Your task to perform on an android device: Open the stopwatch Image 0: 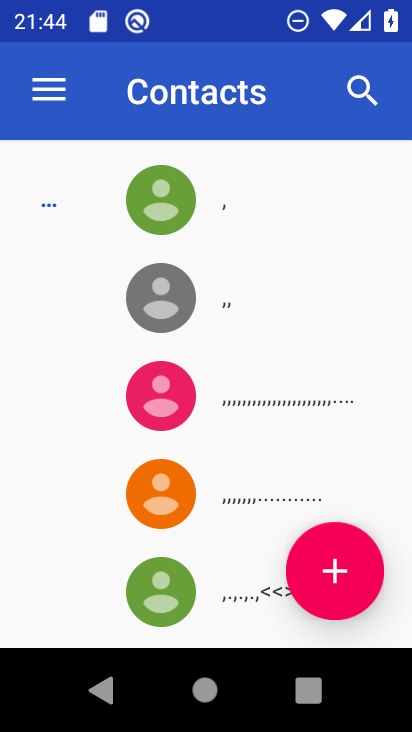
Step 0: press home button
Your task to perform on an android device: Open the stopwatch Image 1: 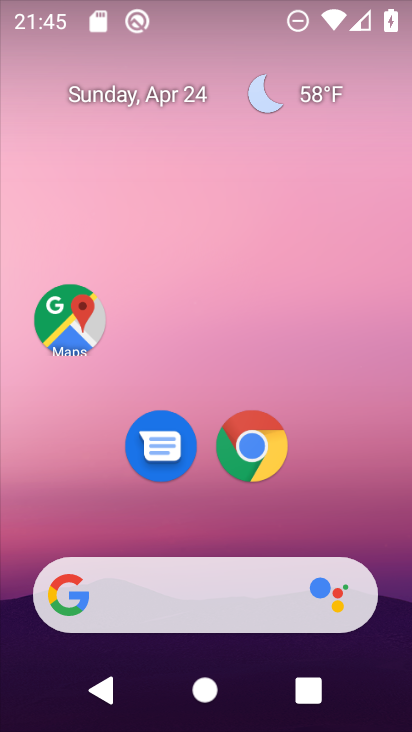
Step 1: drag from (138, 585) to (280, 6)
Your task to perform on an android device: Open the stopwatch Image 2: 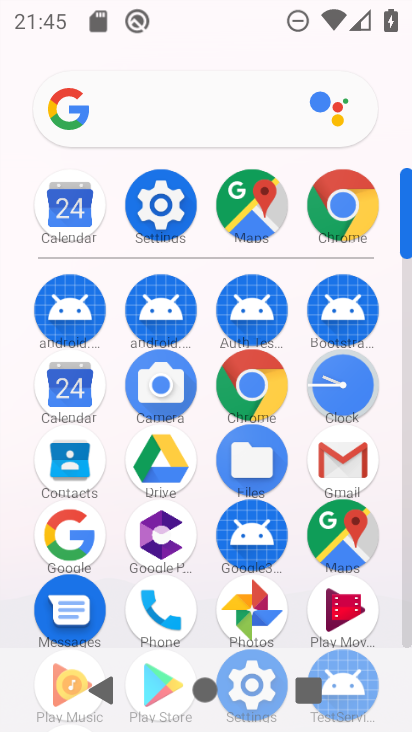
Step 2: click (338, 400)
Your task to perform on an android device: Open the stopwatch Image 3: 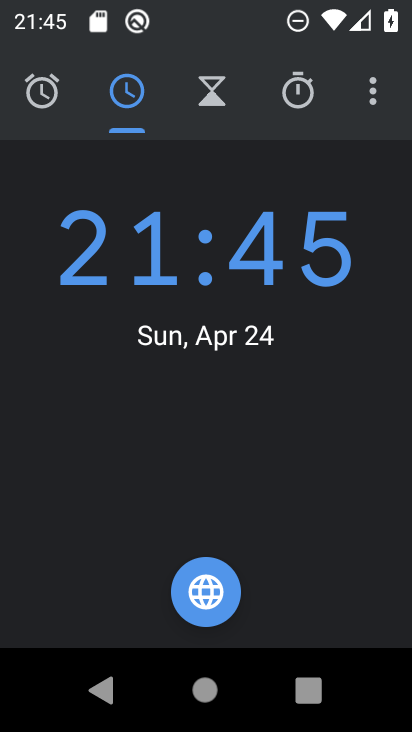
Step 3: click (301, 96)
Your task to perform on an android device: Open the stopwatch Image 4: 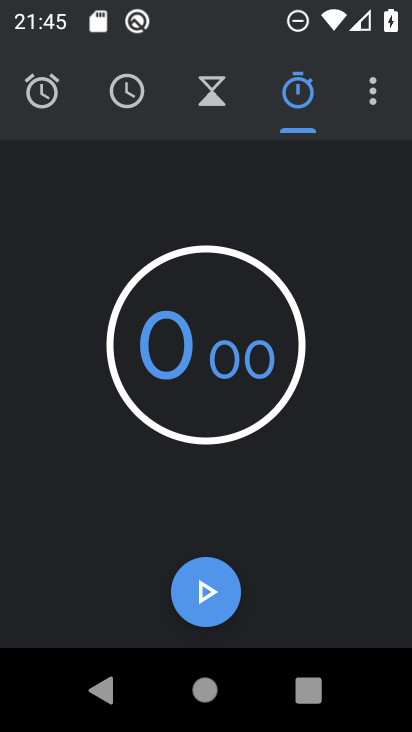
Step 4: task complete